Your task to perform on an android device: Show me productivity apps on the Play Store Image 0: 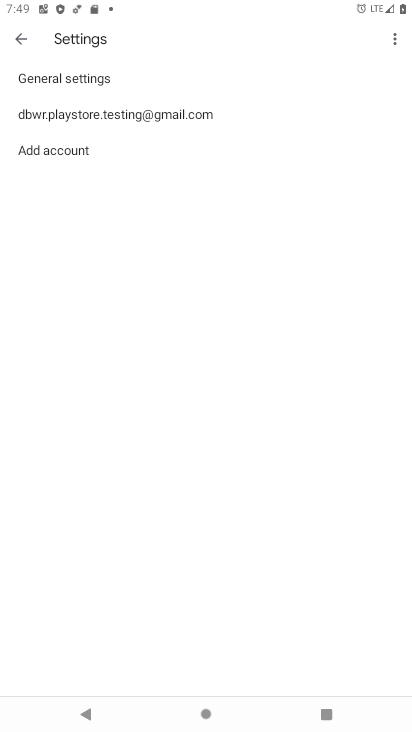
Step 0: click (65, 79)
Your task to perform on an android device: Show me productivity apps on the Play Store Image 1: 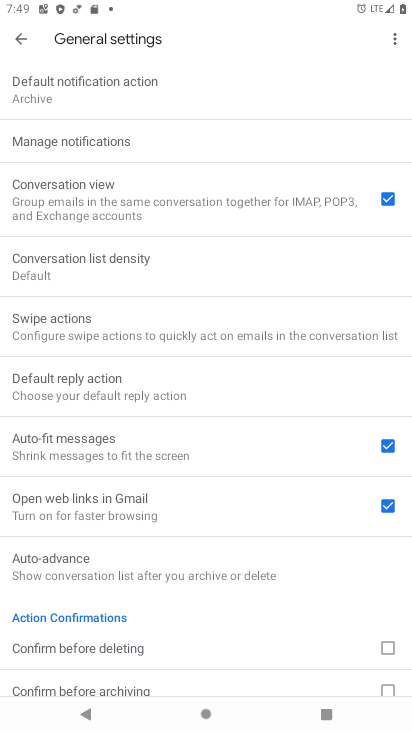
Step 1: press home button
Your task to perform on an android device: Show me productivity apps on the Play Store Image 2: 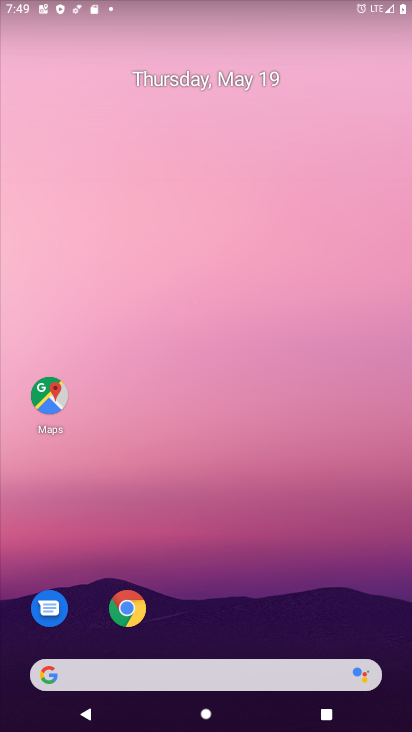
Step 2: drag from (383, 435) to (376, 257)
Your task to perform on an android device: Show me productivity apps on the Play Store Image 3: 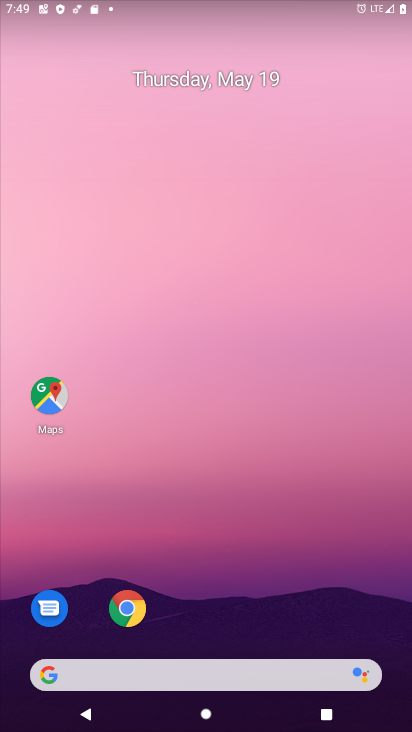
Step 3: drag from (392, 642) to (370, 292)
Your task to perform on an android device: Show me productivity apps on the Play Store Image 4: 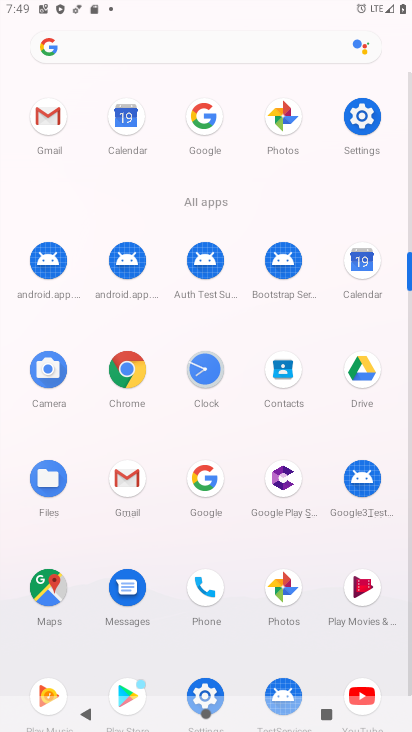
Step 4: click (125, 682)
Your task to perform on an android device: Show me productivity apps on the Play Store Image 5: 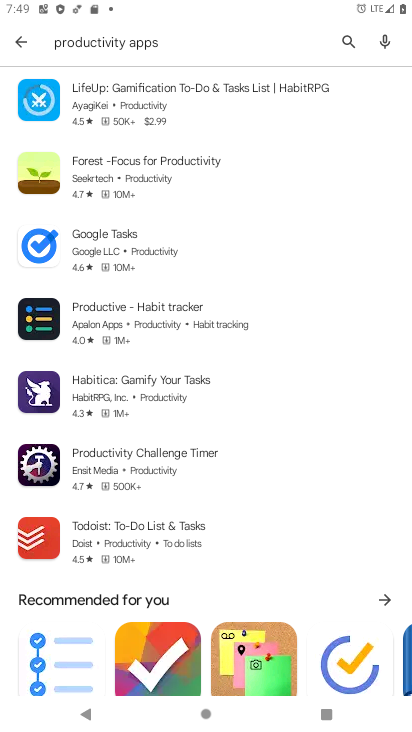
Step 5: task complete